Your task to perform on an android device: Open calendar and show me the first week of next month Image 0: 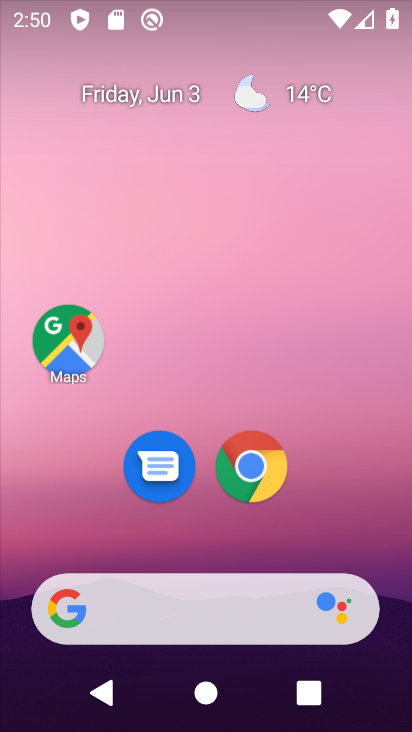
Step 0: drag from (201, 539) to (211, 66)
Your task to perform on an android device: Open calendar and show me the first week of next month Image 1: 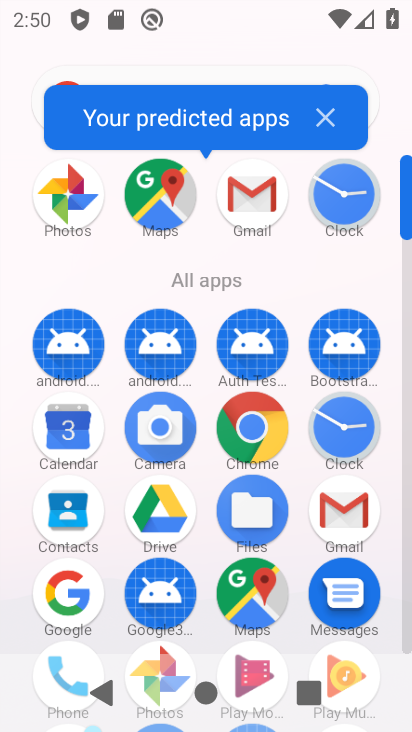
Step 1: click (63, 424)
Your task to perform on an android device: Open calendar and show me the first week of next month Image 2: 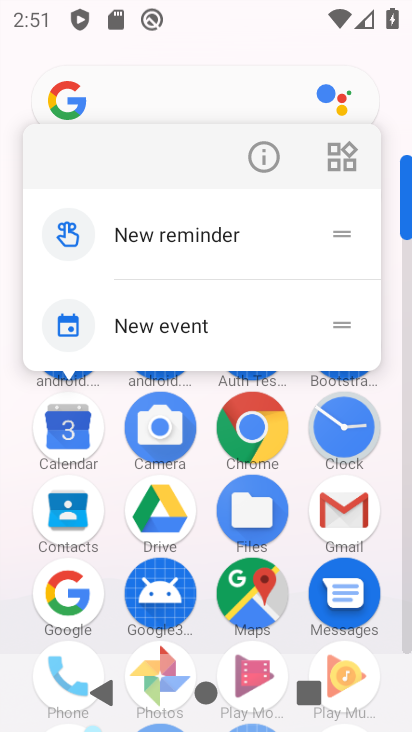
Step 2: click (69, 427)
Your task to perform on an android device: Open calendar and show me the first week of next month Image 3: 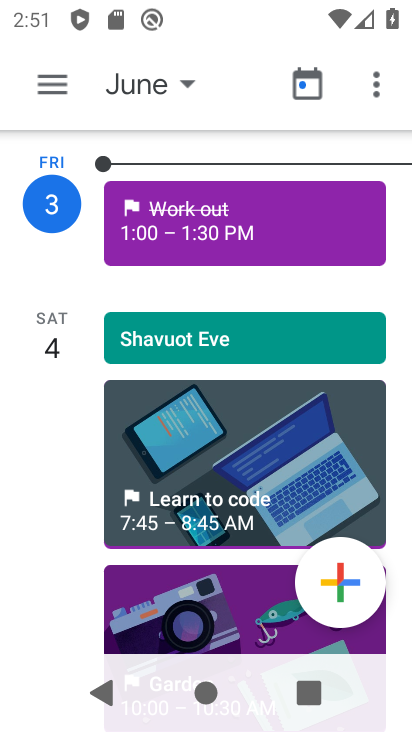
Step 3: click (170, 91)
Your task to perform on an android device: Open calendar and show me the first week of next month Image 4: 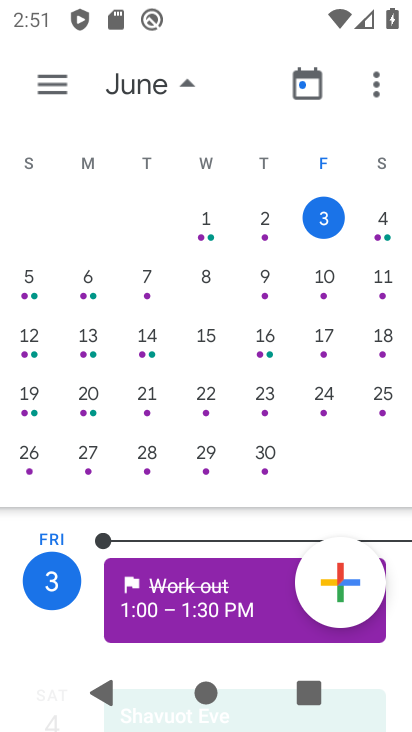
Step 4: drag from (287, 325) to (73, 307)
Your task to perform on an android device: Open calendar and show me the first week of next month Image 5: 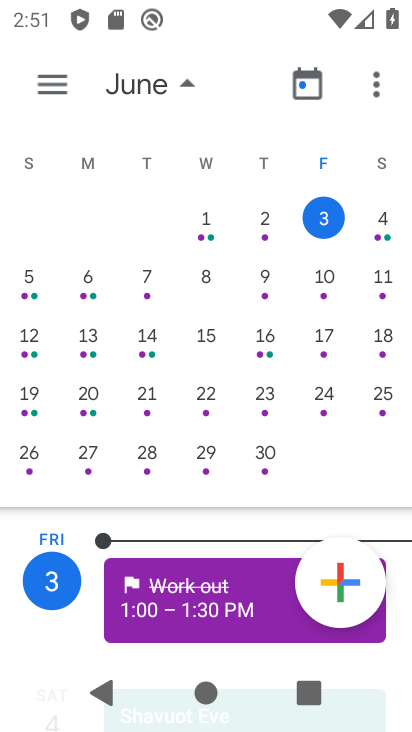
Step 5: drag from (383, 335) to (7, 329)
Your task to perform on an android device: Open calendar and show me the first week of next month Image 6: 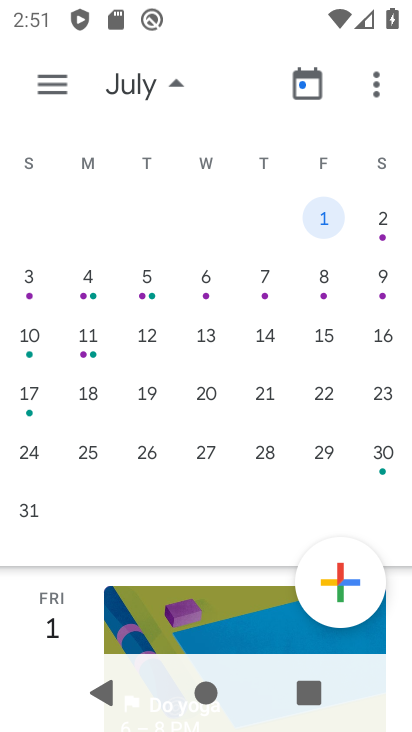
Step 6: click (32, 277)
Your task to perform on an android device: Open calendar and show me the first week of next month Image 7: 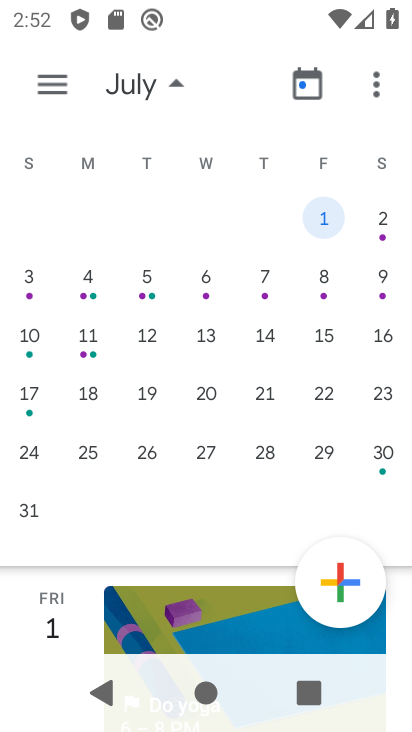
Step 7: click (20, 284)
Your task to perform on an android device: Open calendar and show me the first week of next month Image 8: 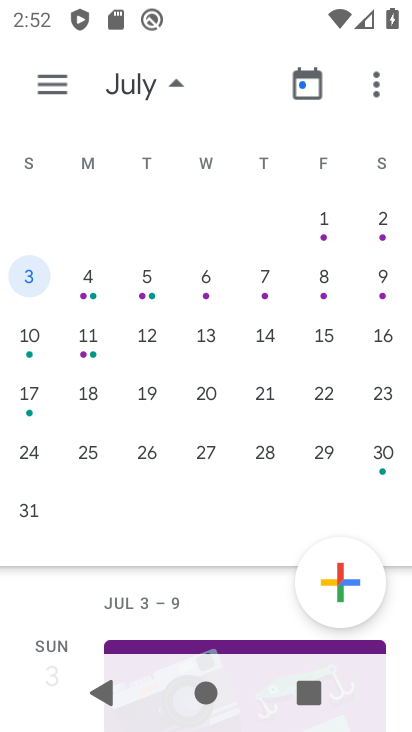
Step 8: click (177, 82)
Your task to perform on an android device: Open calendar and show me the first week of next month Image 9: 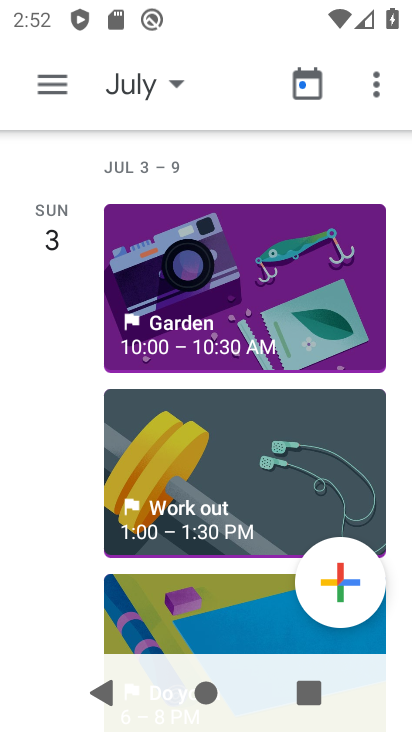
Step 9: task complete